Your task to perform on an android device: turn vacation reply on in the gmail app Image 0: 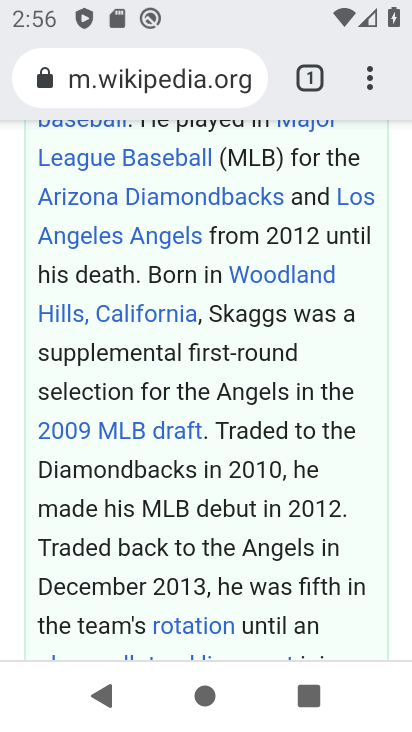
Step 0: press home button
Your task to perform on an android device: turn vacation reply on in the gmail app Image 1: 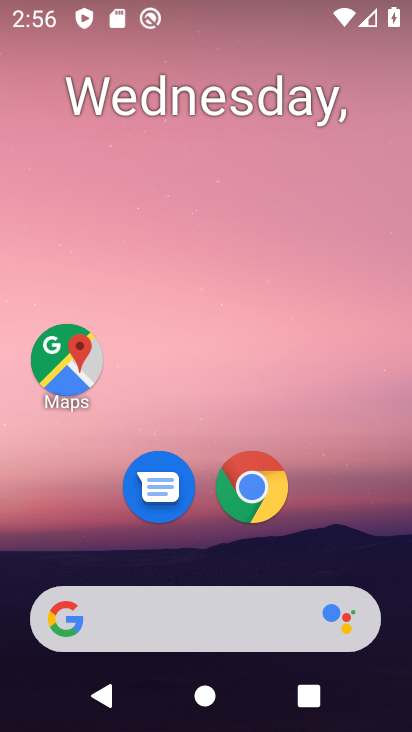
Step 1: drag from (346, 565) to (325, 128)
Your task to perform on an android device: turn vacation reply on in the gmail app Image 2: 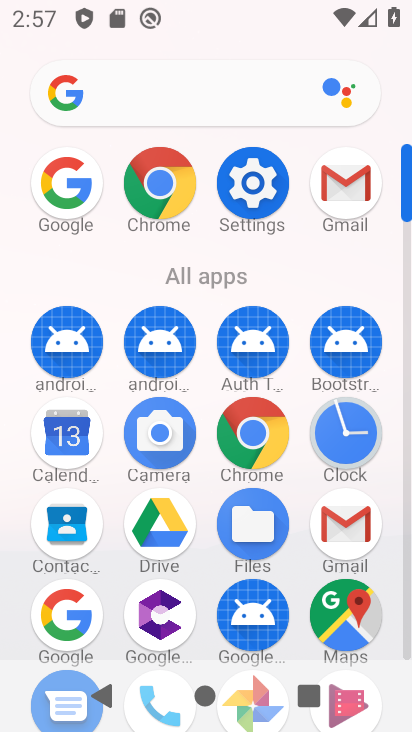
Step 2: click (366, 539)
Your task to perform on an android device: turn vacation reply on in the gmail app Image 3: 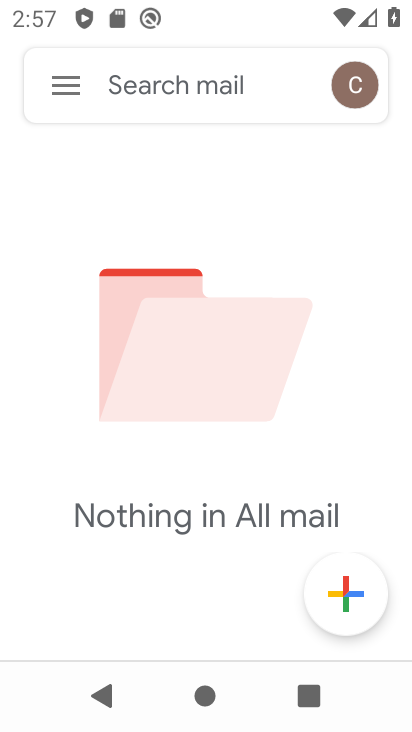
Step 3: click (67, 95)
Your task to perform on an android device: turn vacation reply on in the gmail app Image 4: 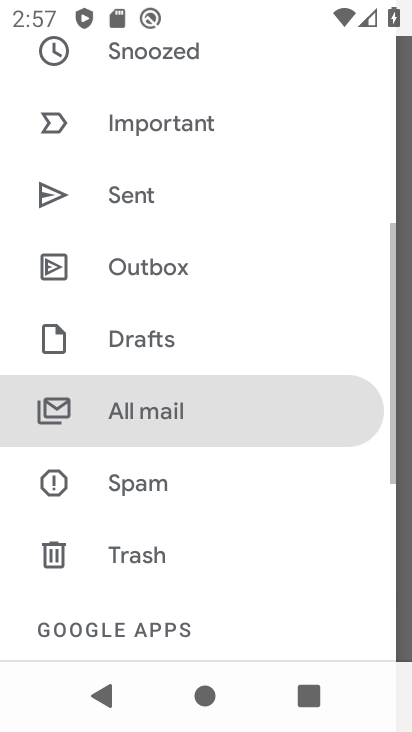
Step 4: drag from (138, 566) to (171, 82)
Your task to perform on an android device: turn vacation reply on in the gmail app Image 5: 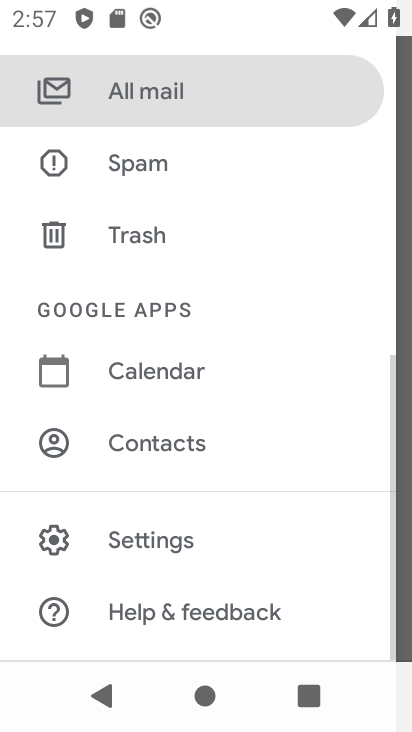
Step 5: click (126, 543)
Your task to perform on an android device: turn vacation reply on in the gmail app Image 6: 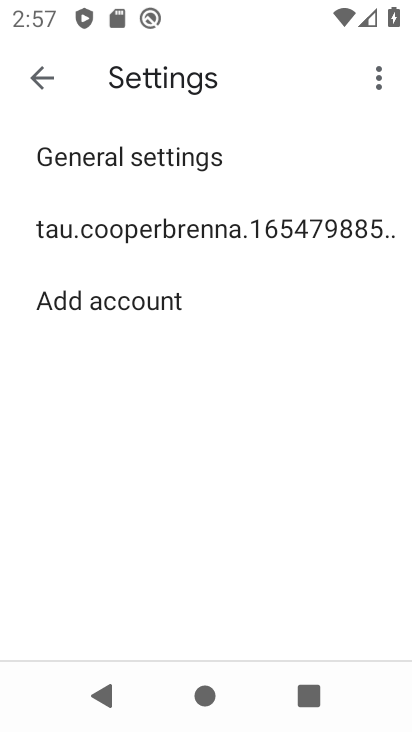
Step 6: click (149, 231)
Your task to perform on an android device: turn vacation reply on in the gmail app Image 7: 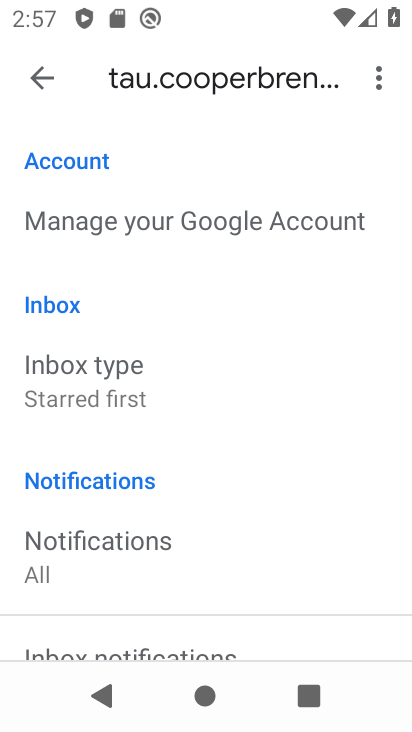
Step 7: drag from (157, 544) to (210, 156)
Your task to perform on an android device: turn vacation reply on in the gmail app Image 8: 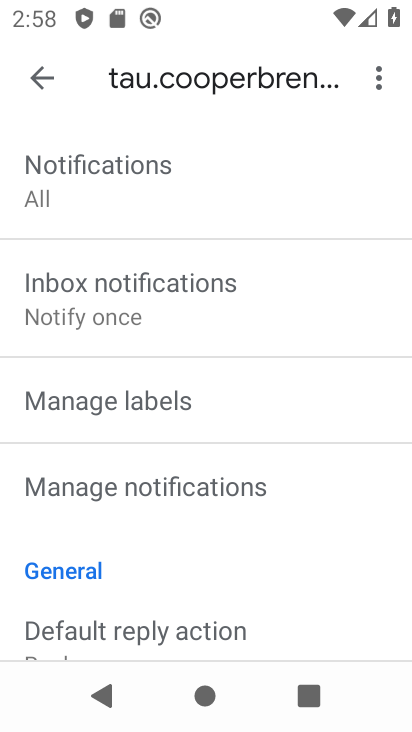
Step 8: drag from (263, 415) to (258, 600)
Your task to perform on an android device: turn vacation reply on in the gmail app Image 9: 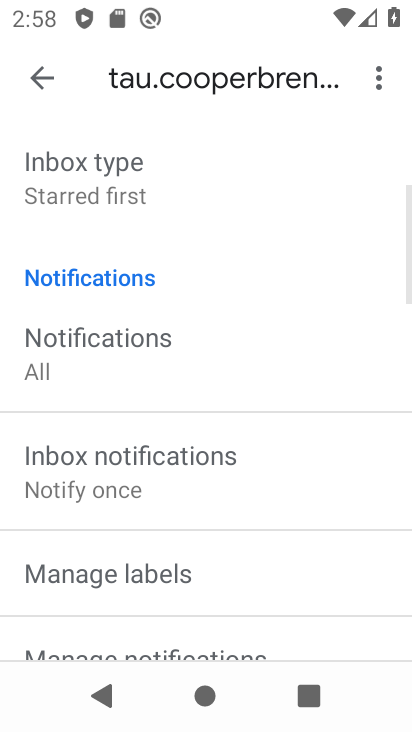
Step 9: drag from (279, 163) to (316, 102)
Your task to perform on an android device: turn vacation reply on in the gmail app Image 10: 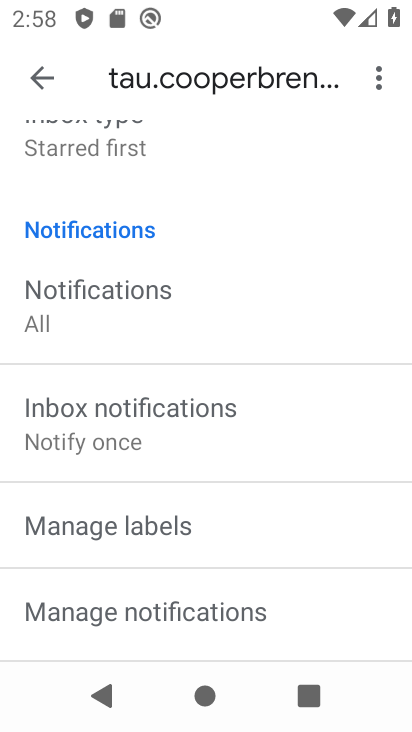
Step 10: drag from (231, 513) to (287, 250)
Your task to perform on an android device: turn vacation reply on in the gmail app Image 11: 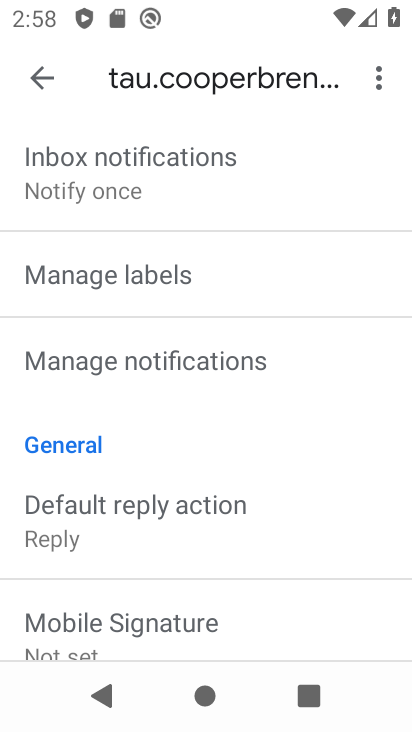
Step 11: drag from (282, 404) to (349, 107)
Your task to perform on an android device: turn vacation reply on in the gmail app Image 12: 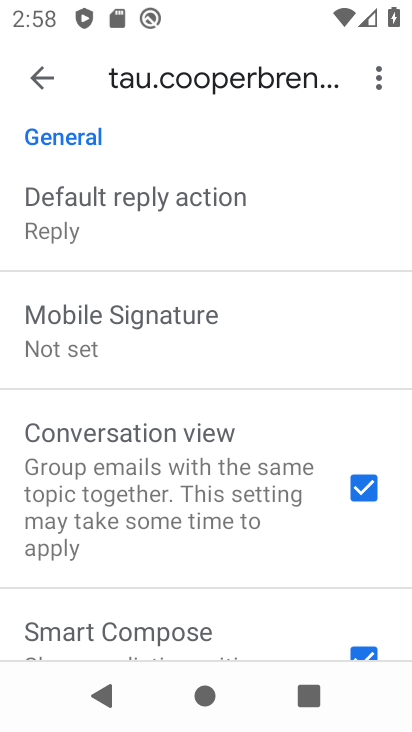
Step 12: drag from (279, 563) to (329, 162)
Your task to perform on an android device: turn vacation reply on in the gmail app Image 13: 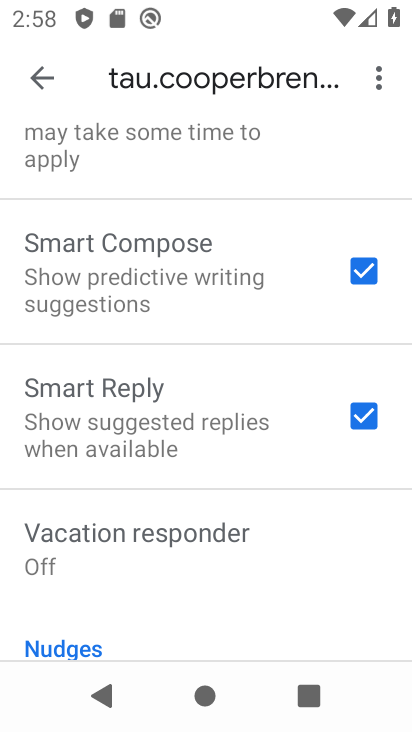
Step 13: drag from (309, 572) to (356, 224)
Your task to perform on an android device: turn vacation reply on in the gmail app Image 14: 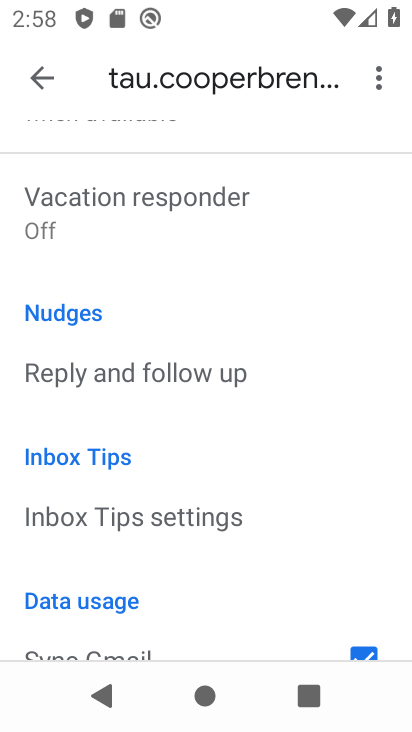
Step 14: drag from (312, 540) to (396, 275)
Your task to perform on an android device: turn vacation reply on in the gmail app Image 15: 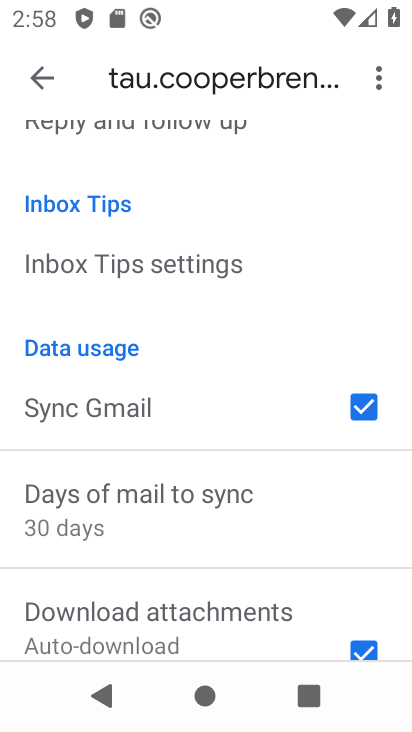
Step 15: drag from (257, 623) to (196, 175)
Your task to perform on an android device: turn vacation reply on in the gmail app Image 16: 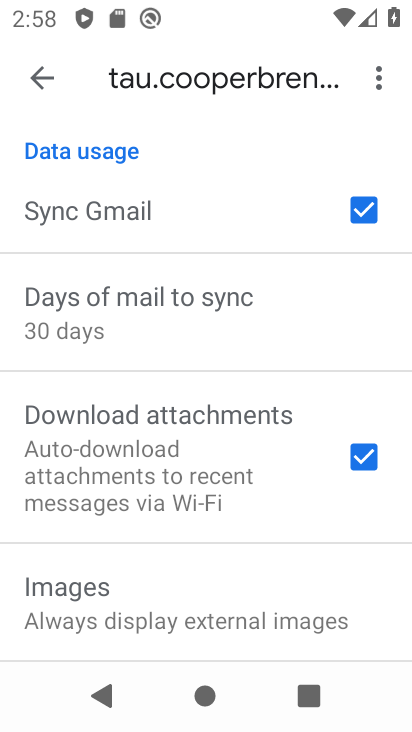
Step 16: drag from (196, 175) to (197, 416)
Your task to perform on an android device: turn vacation reply on in the gmail app Image 17: 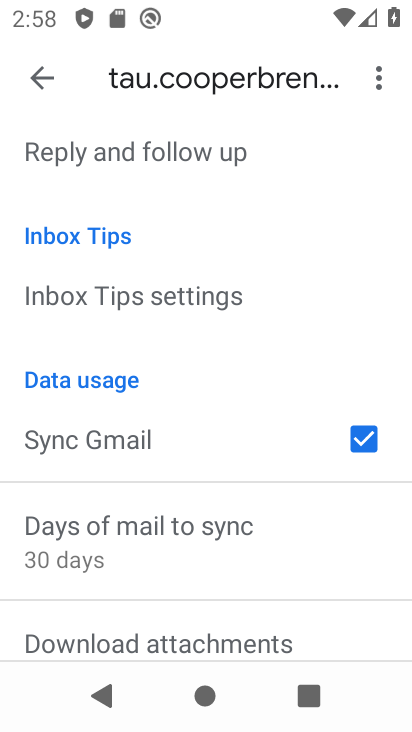
Step 17: drag from (211, 192) to (204, 487)
Your task to perform on an android device: turn vacation reply on in the gmail app Image 18: 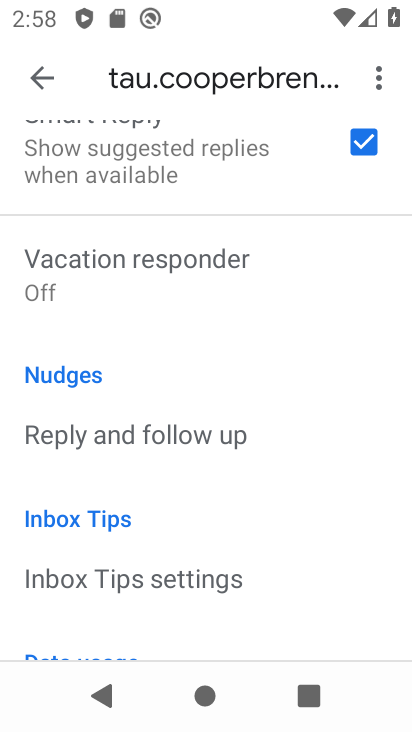
Step 18: click (173, 263)
Your task to perform on an android device: turn vacation reply on in the gmail app Image 19: 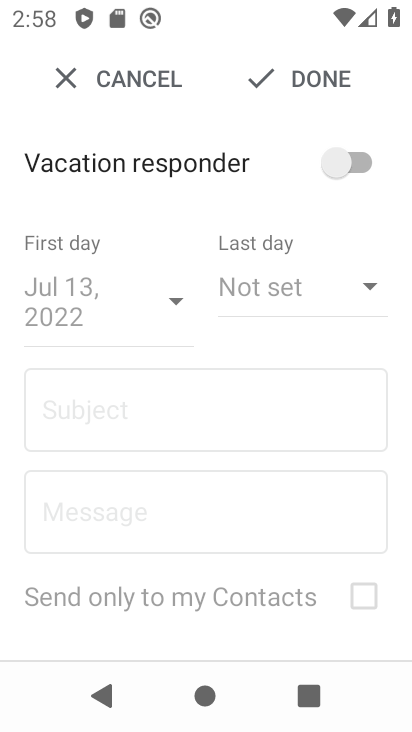
Step 19: click (367, 163)
Your task to perform on an android device: turn vacation reply on in the gmail app Image 20: 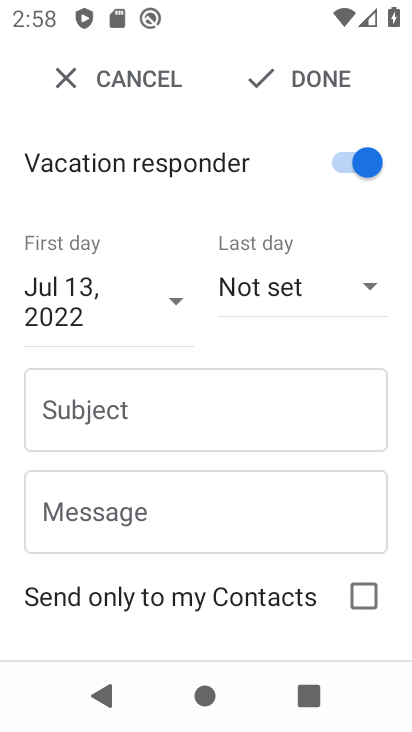
Step 20: task complete